Your task to perform on an android device: change notifications settings Image 0: 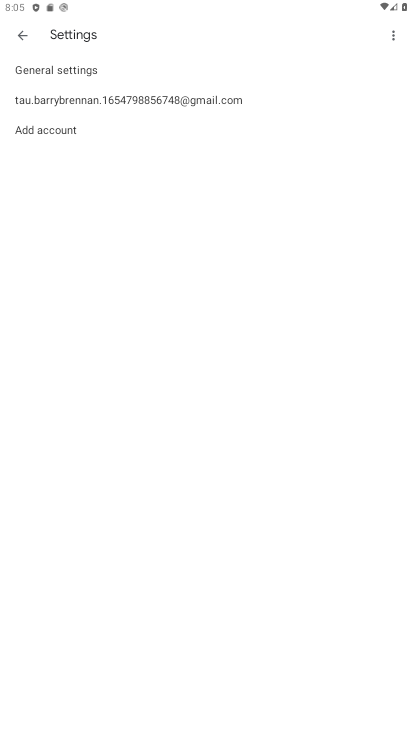
Step 0: press home button
Your task to perform on an android device: change notifications settings Image 1: 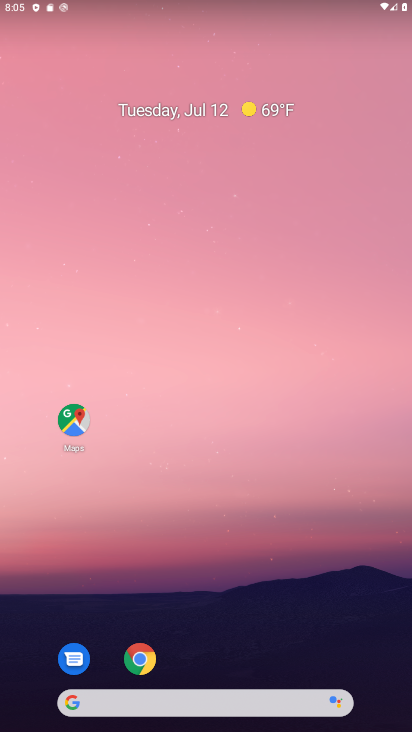
Step 1: drag from (226, 722) to (220, 221)
Your task to perform on an android device: change notifications settings Image 2: 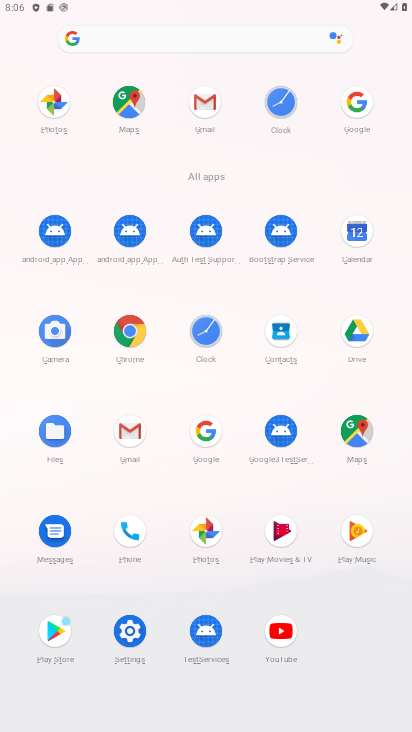
Step 2: click (132, 629)
Your task to perform on an android device: change notifications settings Image 3: 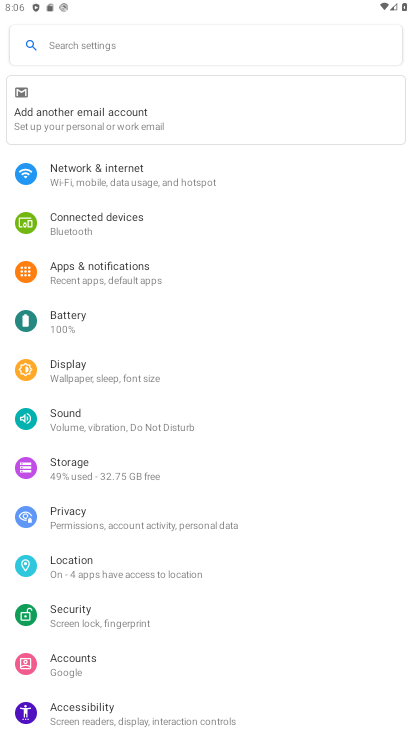
Step 3: click (103, 271)
Your task to perform on an android device: change notifications settings Image 4: 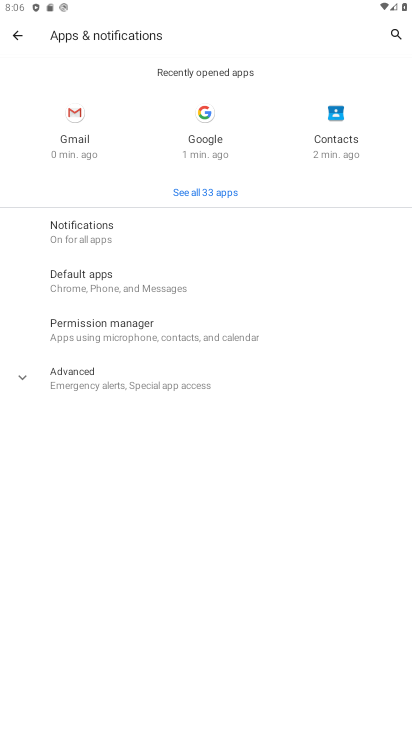
Step 4: click (78, 229)
Your task to perform on an android device: change notifications settings Image 5: 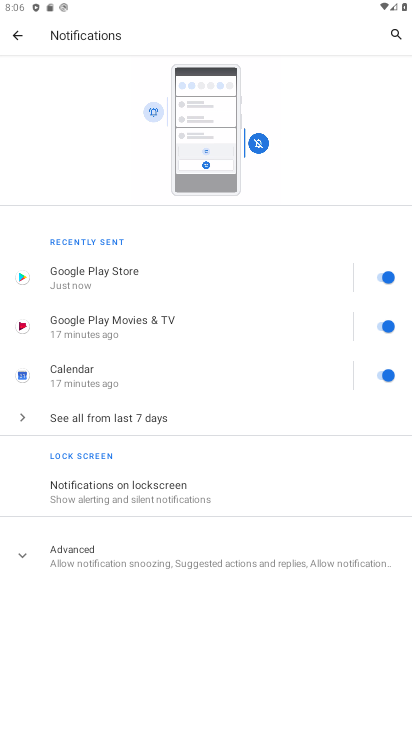
Step 5: click (75, 549)
Your task to perform on an android device: change notifications settings Image 6: 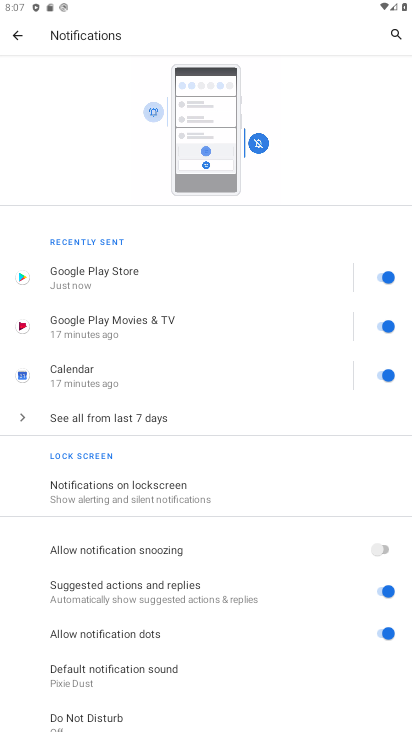
Step 6: click (382, 544)
Your task to perform on an android device: change notifications settings Image 7: 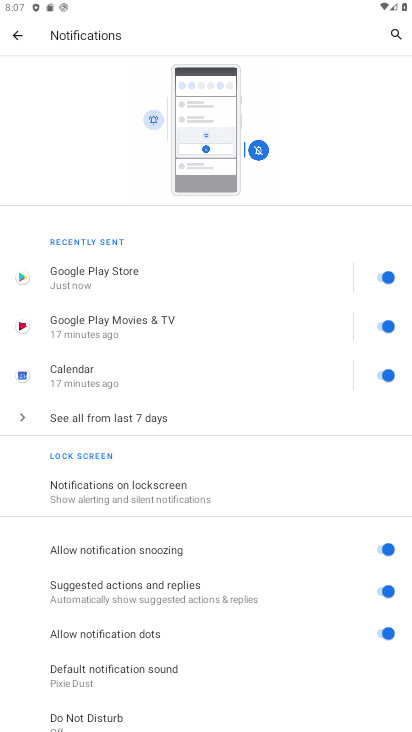
Step 7: task complete